Your task to perform on an android device: check out phone information Image 0: 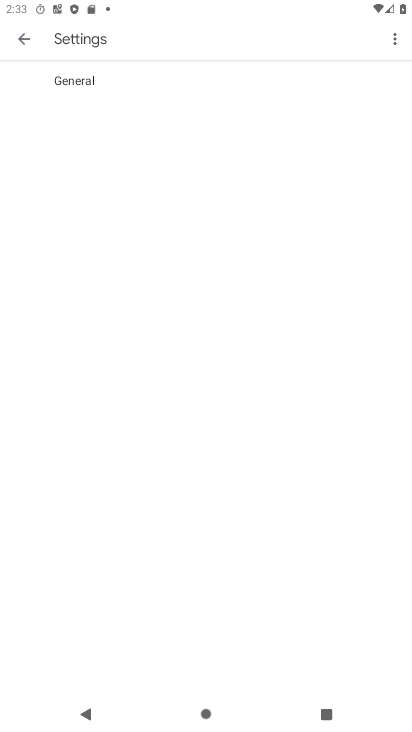
Step 0: press home button
Your task to perform on an android device: check out phone information Image 1: 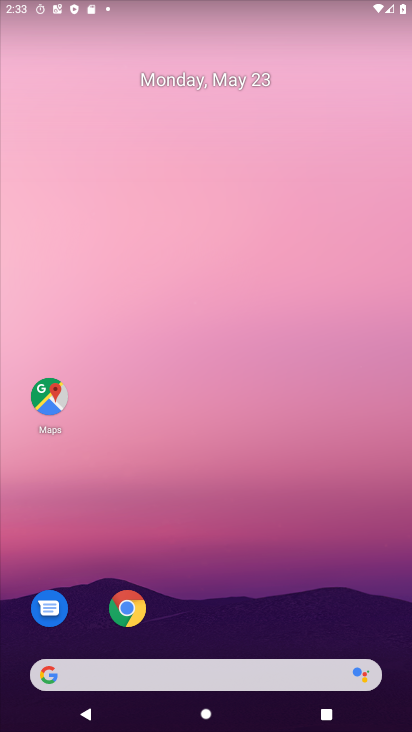
Step 1: drag from (285, 606) to (284, 9)
Your task to perform on an android device: check out phone information Image 2: 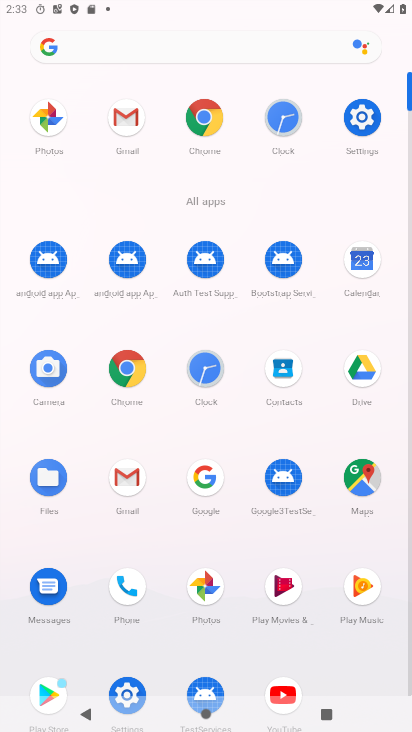
Step 2: click (369, 129)
Your task to perform on an android device: check out phone information Image 3: 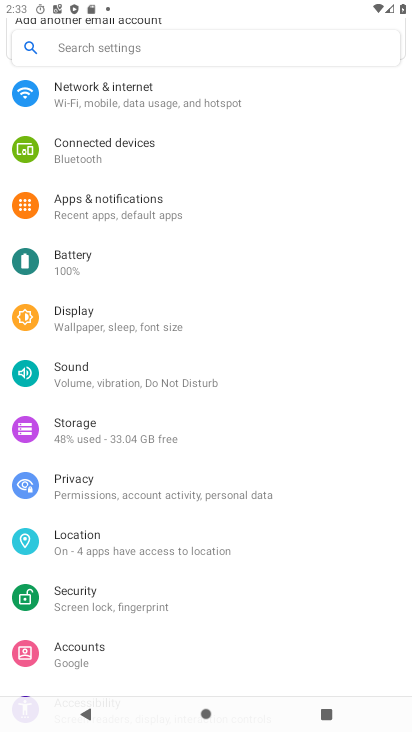
Step 3: drag from (146, 610) to (208, 63)
Your task to perform on an android device: check out phone information Image 4: 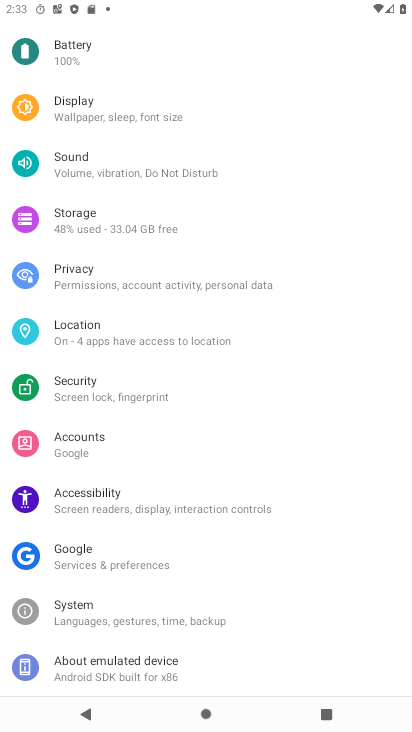
Step 4: drag from (123, 603) to (187, 301)
Your task to perform on an android device: check out phone information Image 5: 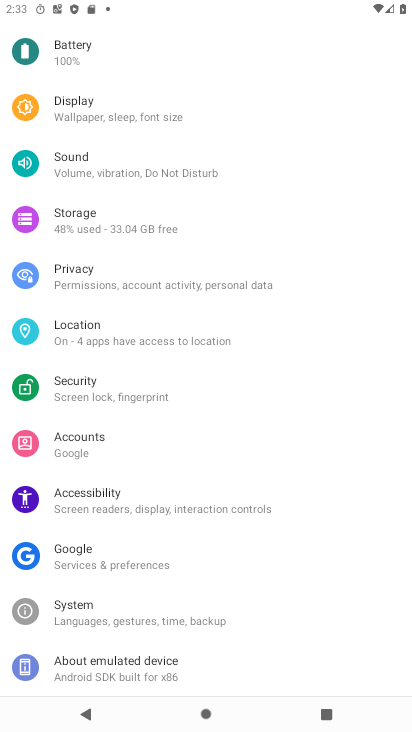
Step 5: click (104, 667)
Your task to perform on an android device: check out phone information Image 6: 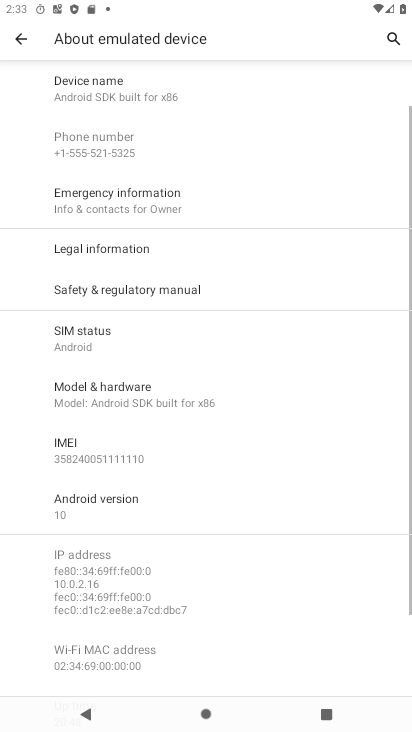
Step 6: task complete